Your task to perform on an android device: empty trash in the gmail app Image 0: 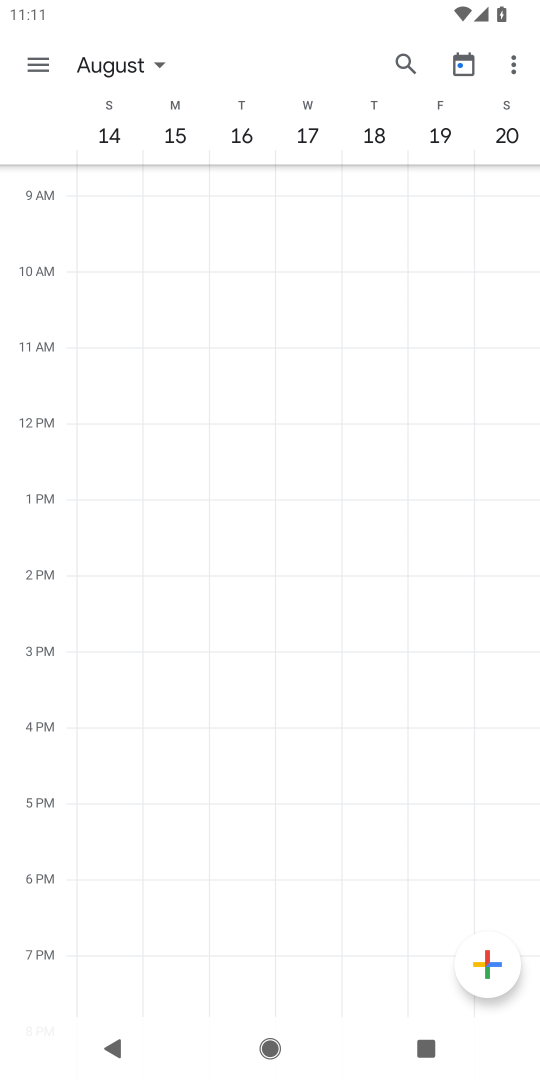
Step 0: press home button
Your task to perform on an android device: empty trash in the gmail app Image 1: 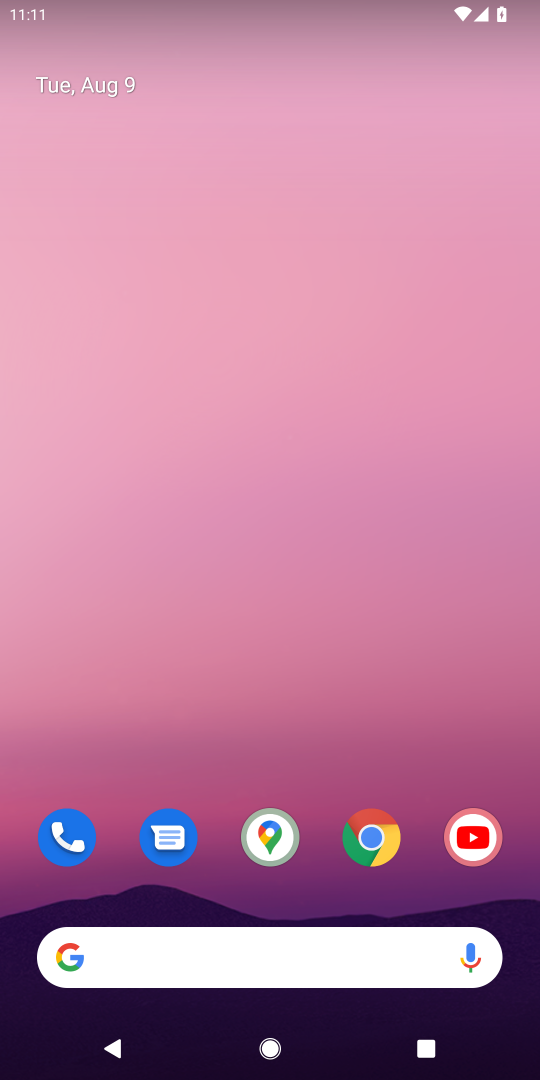
Step 1: drag from (352, 913) to (327, 149)
Your task to perform on an android device: empty trash in the gmail app Image 2: 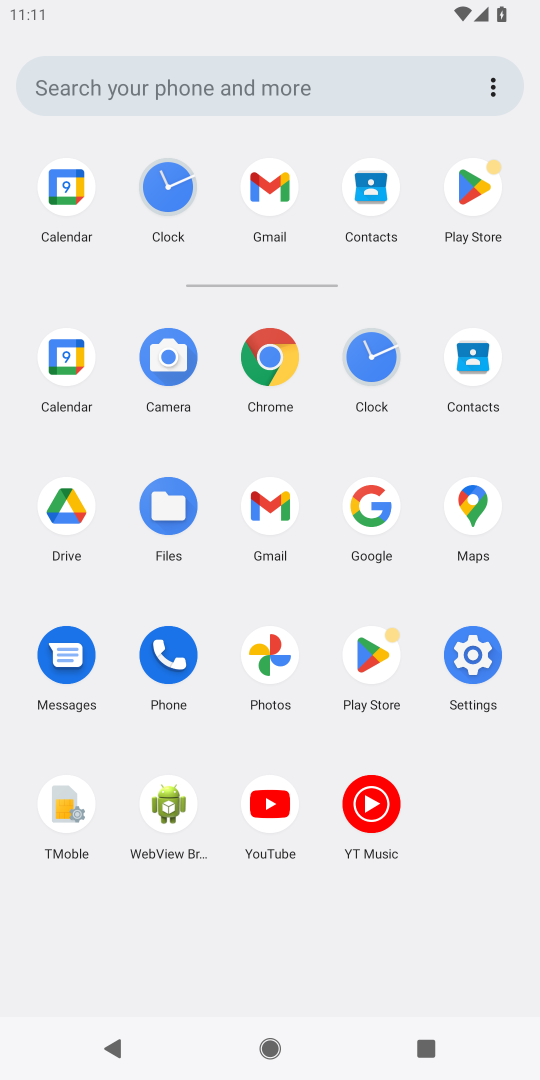
Step 2: click (275, 500)
Your task to perform on an android device: empty trash in the gmail app Image 3: 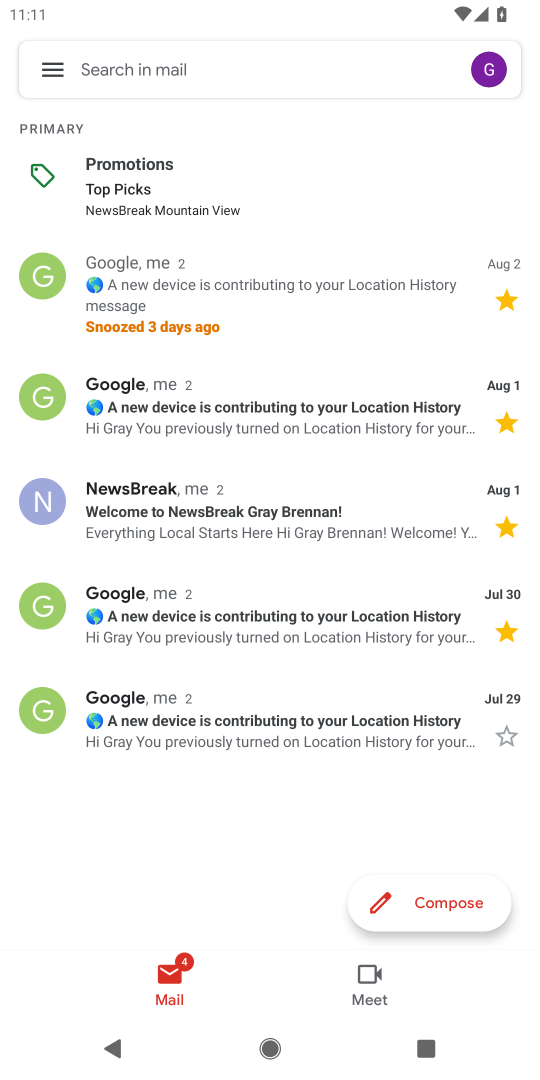
Step 3: click (45, 70)
Your task to perform on an android device: empty trash in the gmail app Image 4: 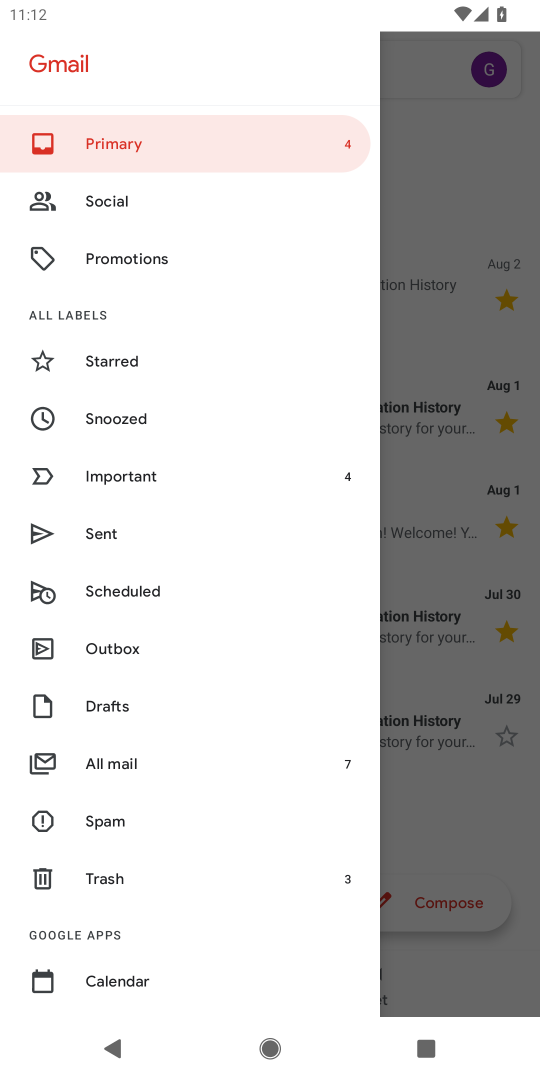
Step 4: click (107, 880)
Your task to perform on an android device: empty trash in the gmail app Image 5: 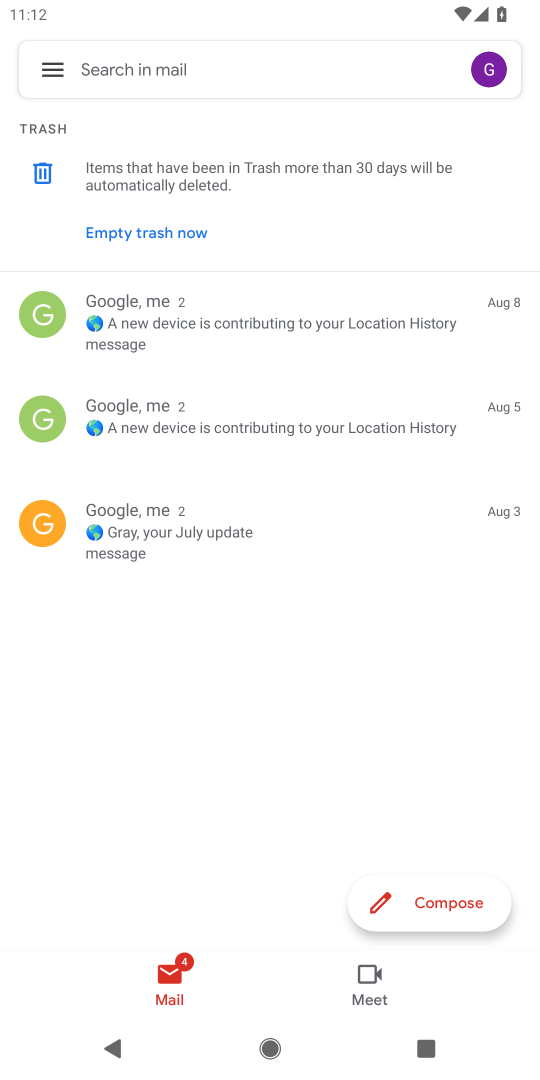
Step 5: click (143, 235)
Your task to perform on an android device: empty trash in the gmail app Image 6: 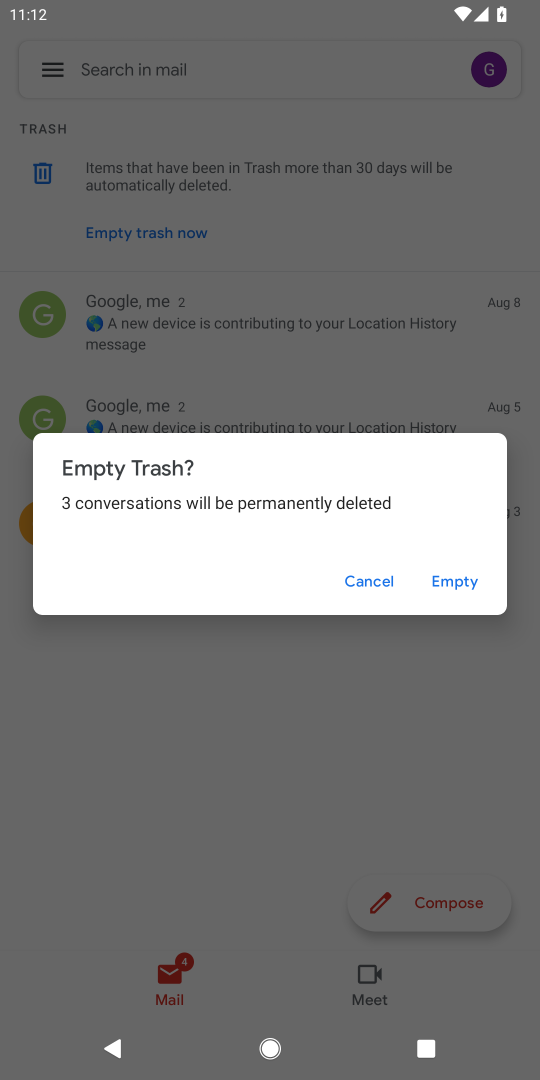
Step 6: click (452, 575)
Your task to perform on an android device: empty trash in the gmail app Image 7: 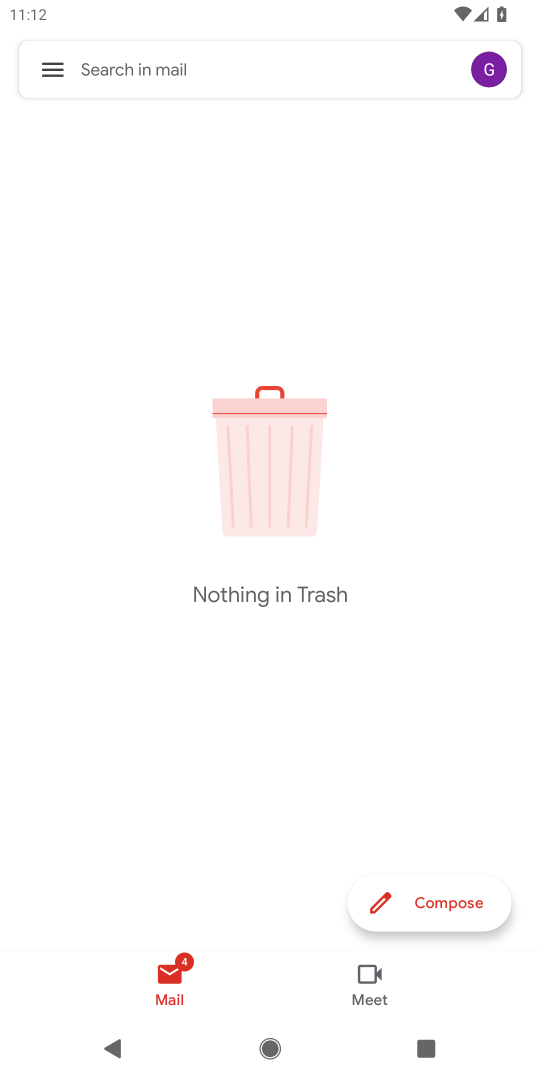
Step 7: task complete